Your task to perform on an android device: Go to Yahoo.com Image 0: 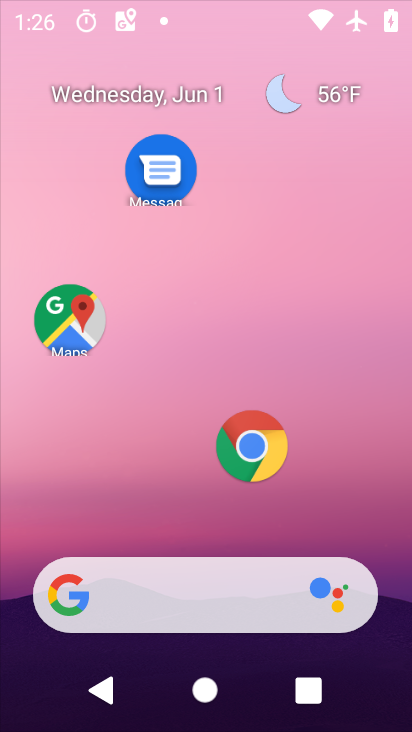
Step 0: task complete